Your task to perform on an android device: Open eBay Image 0: 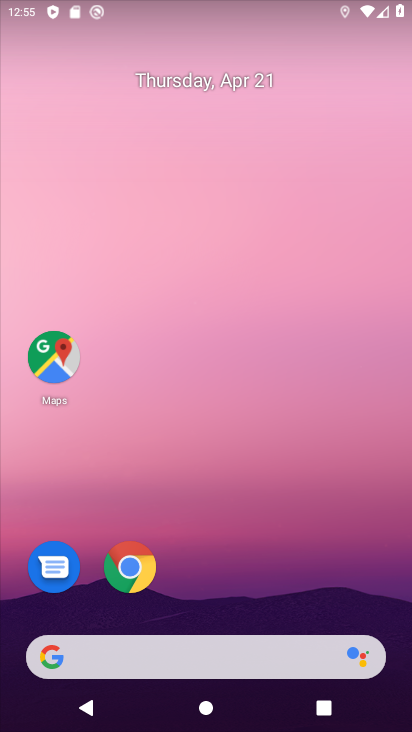
Step 0: click (140, 560)
Your task to perform on an android device: Open eBay Image 1: 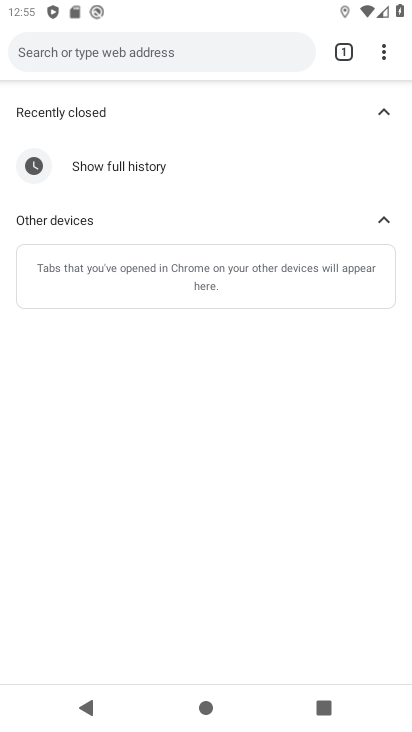
Step 1: click (157, 53)
Your task to perform on an android device: Open eBay Image 2: 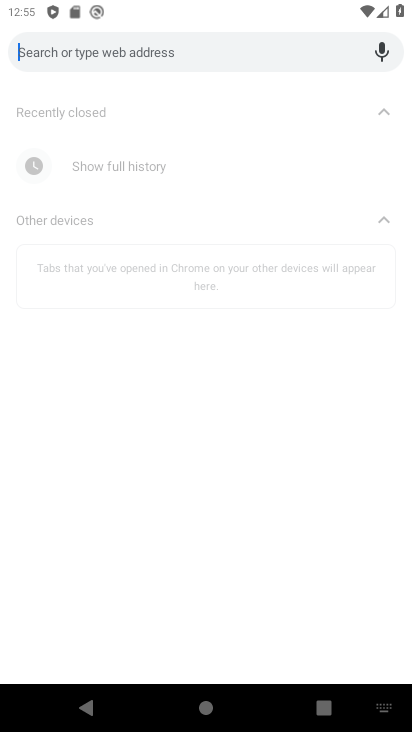
Step 2: type "ebay"
Your task to perform on an android device: Open eBay Image 3: 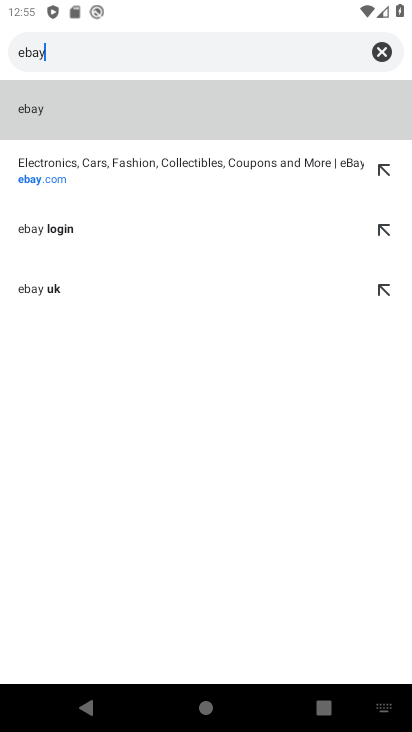
Step 3: click (87, 115)
Your task to perform on an android device: Open eBay Image 4: 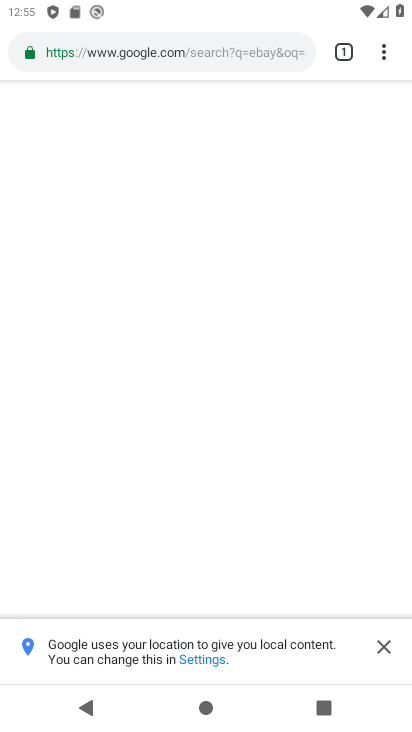
Step 4: click (382, 645)
Your task to perform on an android device: Open eBay Image 5: 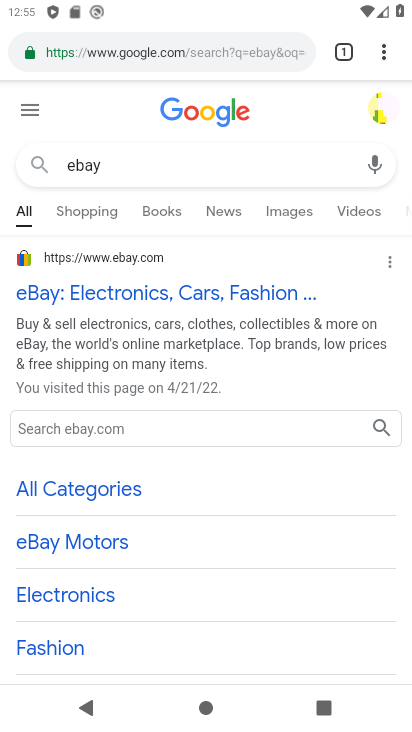
Step 5: click (149, 294)
Your task to perform on an android device: Open eBay Image 6: 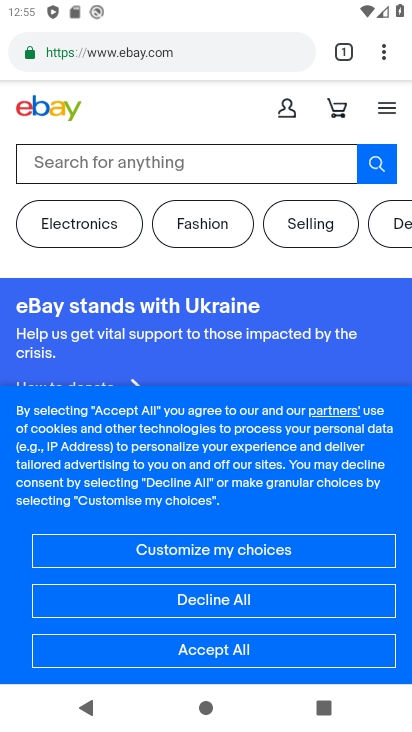
Step 6: task complete